Your task to perform on an android device: turn on the 12-hour format for clock Image 0: 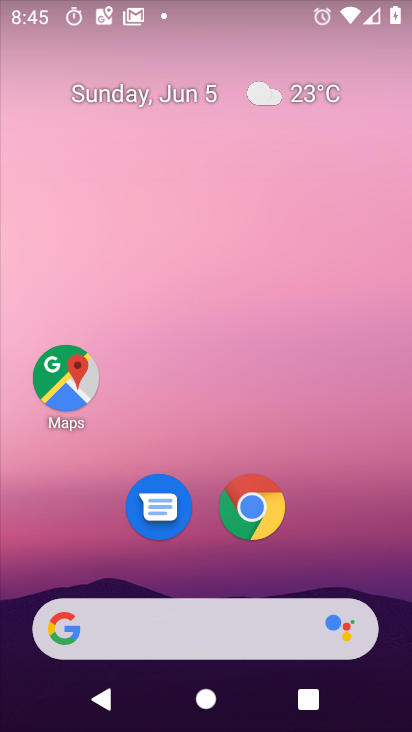
Step 0: drag from (235, 674) to (160, 123)
Your task to perform on an android device: turn on the 12-hour format for clock Image 1: 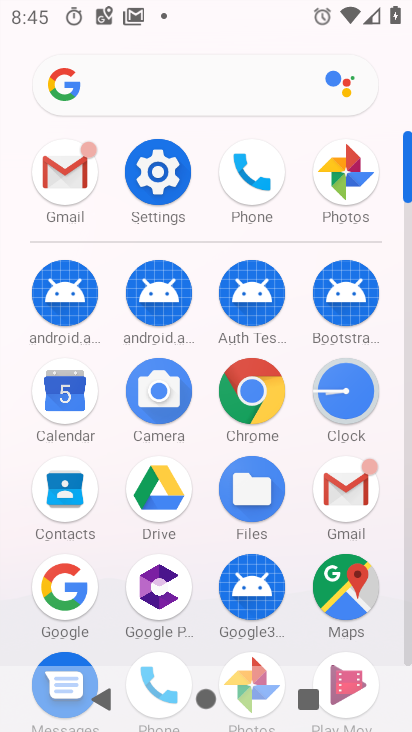
Step 1: click (348, 368)
Your task to perform on an android device: turn on the 12-hour format for clock Image 2: 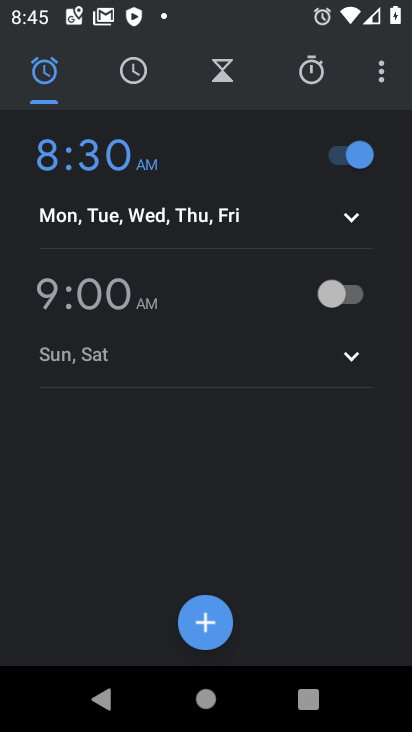
Step 2: click (377, 78)
Your task to perform on an android device: turn on the 12-hour format for clock Image 3: 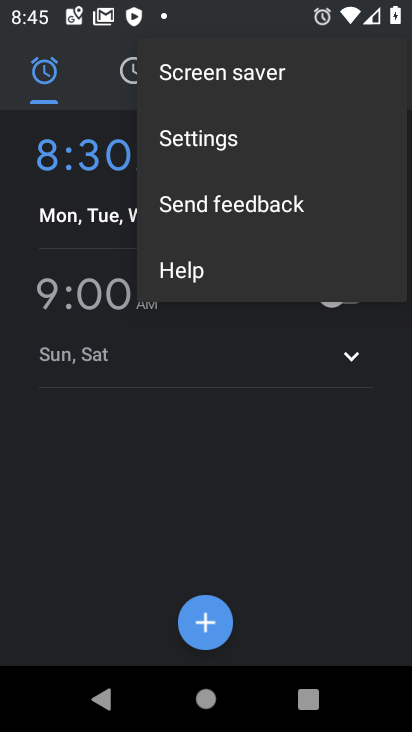
Step 3: click (238, 160)
Your task to perform on an android device: turn on the 12-hour format for clock Image 4: 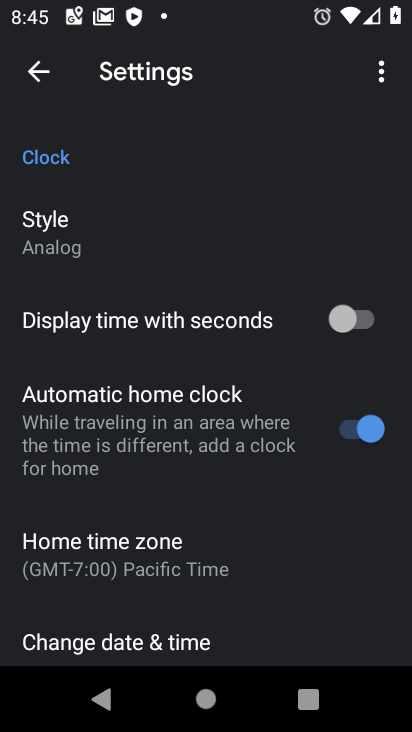
Step 4: click (92, 627)
Your task to perform on an android device: turn on the 12-hour format for clock Image 5: 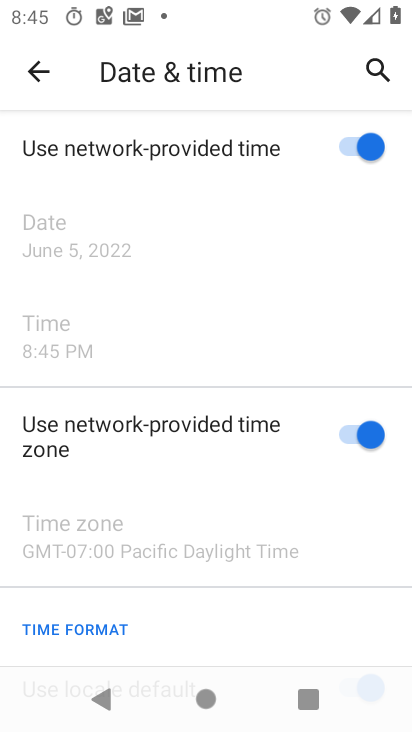
Step 5: drag from (233, 552) to (227, 233)
Your task to perform on an android device: turn on the 12-hour format for clock Image 6: 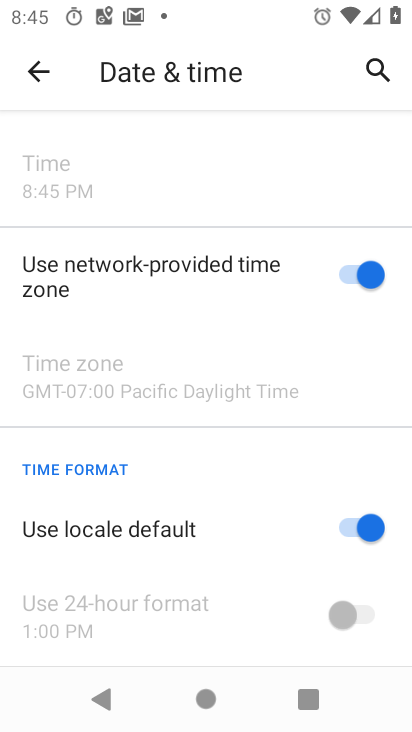
Step 6: click (374, 547)
Your task to perform on an android device: turn on the 12-hour format for clock Image 7: 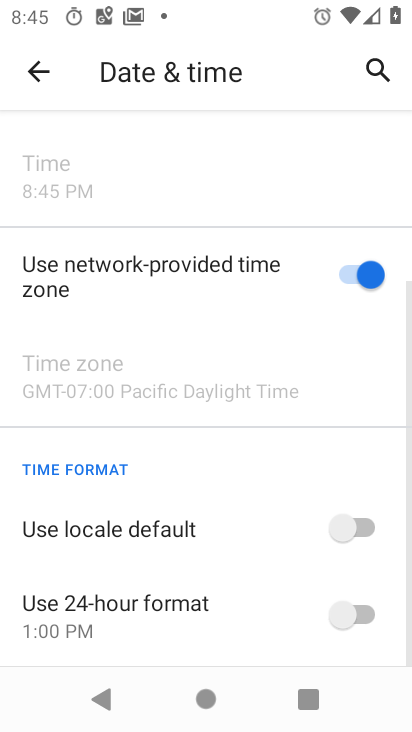
Step 7: click (357, 622)
Your task to perform on an android device: turn on the 12-hour format for clock Image 8: 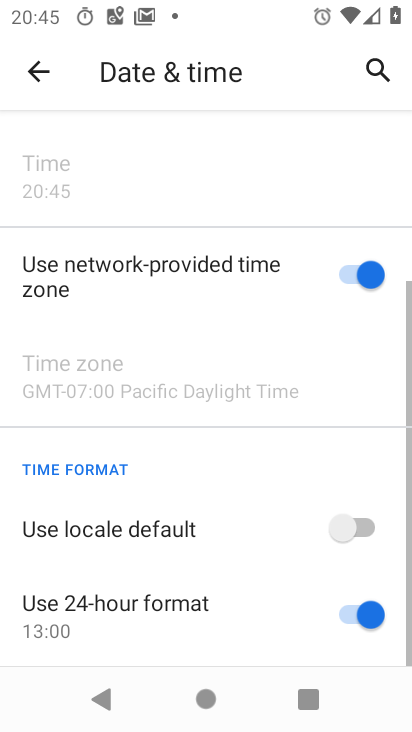
Step 8: click (356, 622)
Your task to perform on an android device: turn on the 12-hour format for clock Image 9: 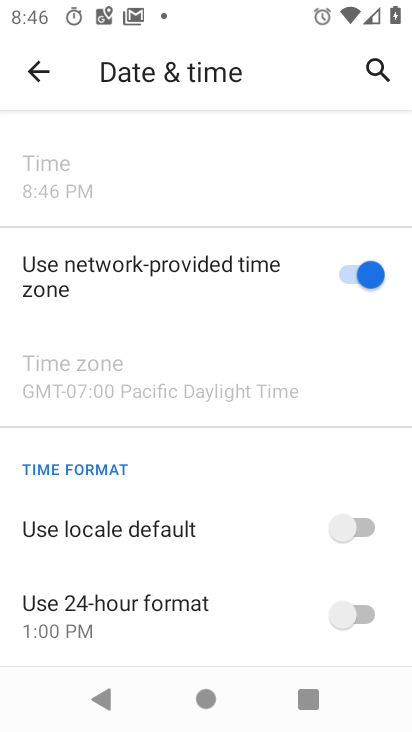
Step 9: task complete